Your task to perform on an android device: turn off sleep mode Image 0: 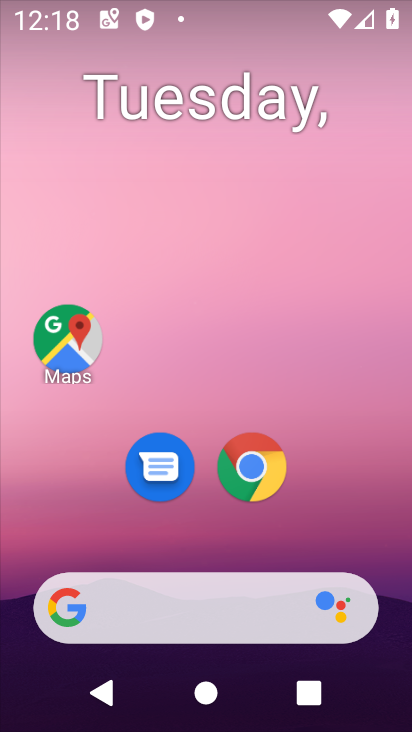
Step 0: drag from (338, 416) to (256, 11)
Your task to perform on an android device: turn off sleep mode Image 1: 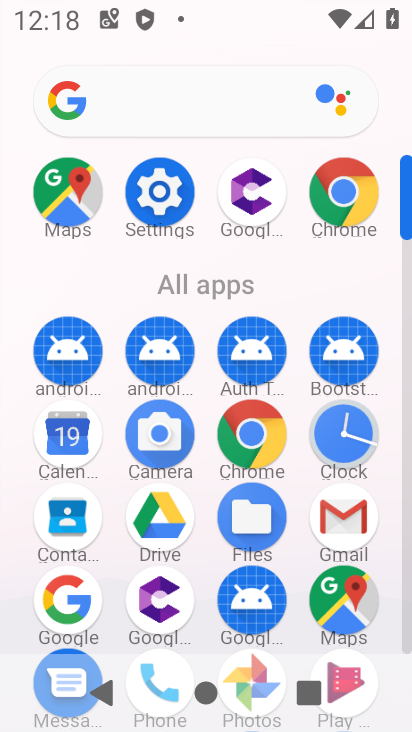
Step 1: click (156, 187)
Your task to perform on an android device: turn off sleep mode Image 2: 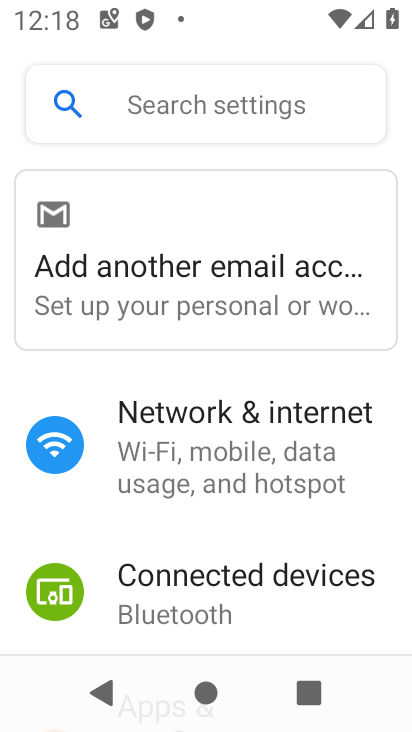
Step 2: click (251, 448)
Your task to perform on an android device: turn off sleep mode Image 3: 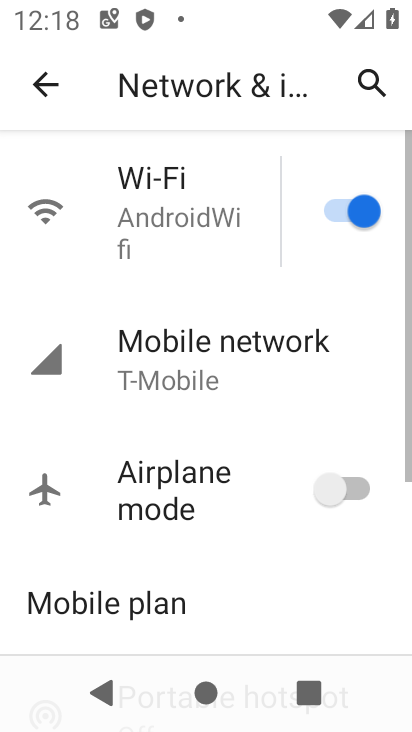
Step 3: click (42, 74)
Your task to perform on an android device: turn off sleep mode Image 4: 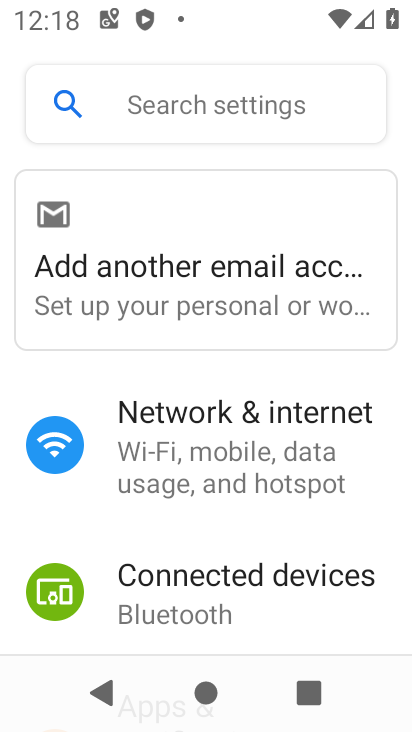
Step 4: drag from (289, 530) to (237, 152)
Your task to perform on an android device: turn off sleep mode Image 5: 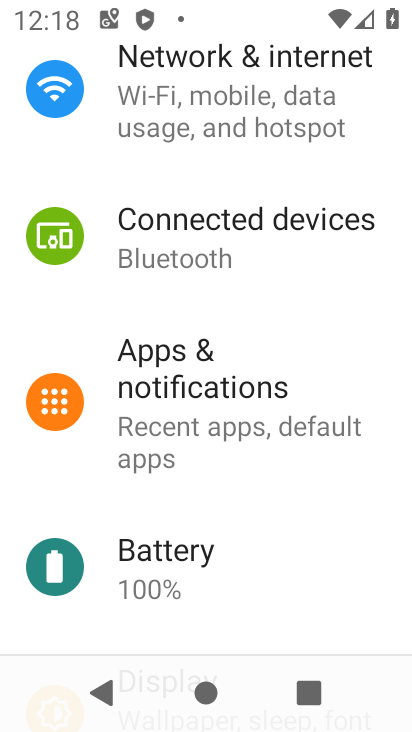
Step 5: drag from (246, 448) to (248, 147)
Your task to perform on an android device: turn off sleep mode Image 6: 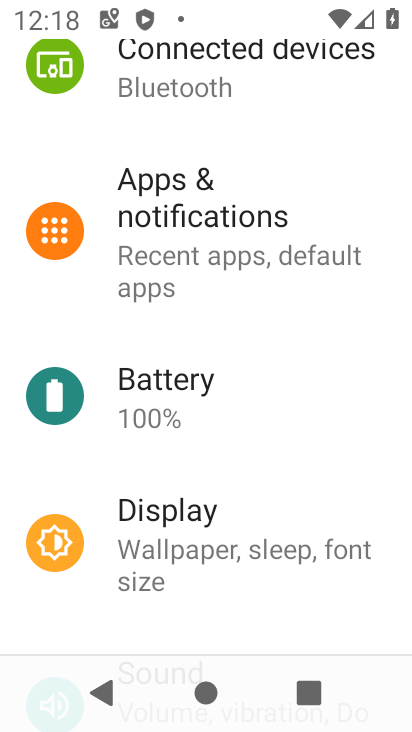
Step 6: click (236, 512)
Your task to perform on an android device: turn off sleep mode Image 7: 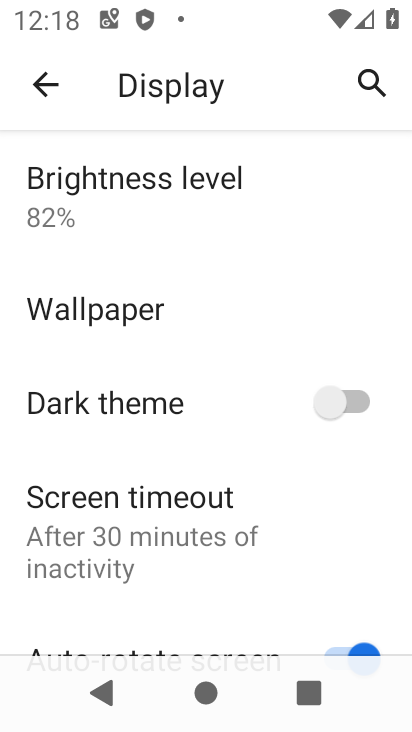
Step 7: drag from (175, 519) to (179, 232)
Your task to perform on an android device: turn off sleep mode Image 8: 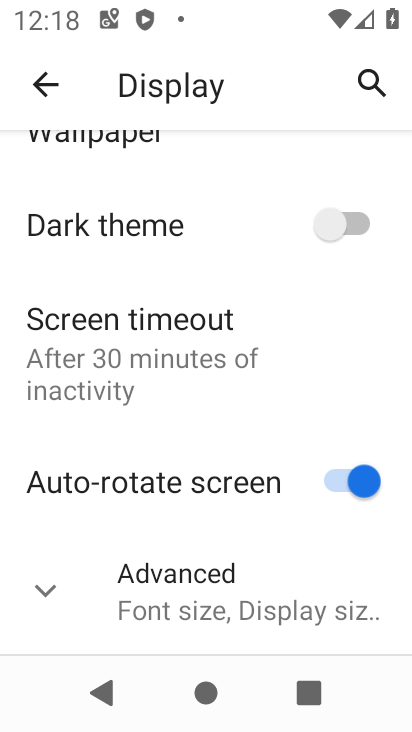
Step 8: click (145, 583)
Your task to perform on an android device: turn off sleep mode Image 9: 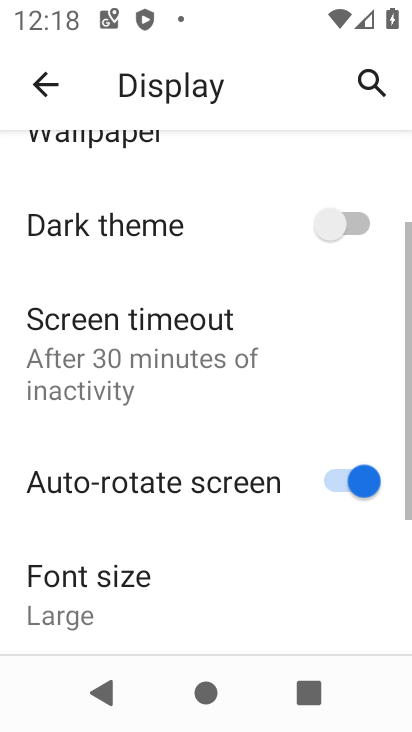
Step 9: task complete